Your task to perform on an android device: search for starred emails in the gmail app Image 0: 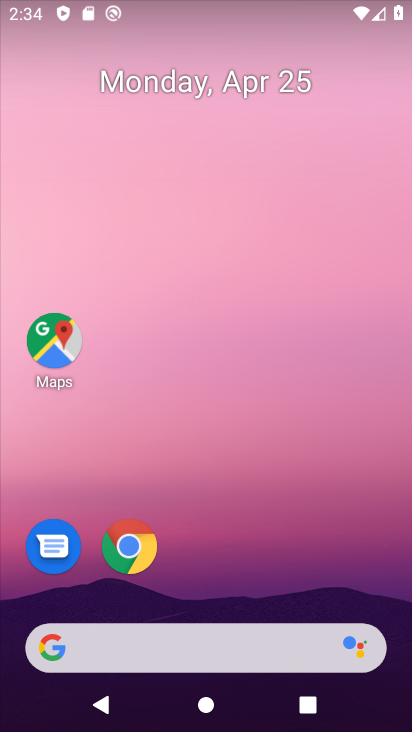
Step 0: drag from (198, 610) to (264, 153)
Your task to perform on an android device: search for starred emails in the gmail app Image 1: 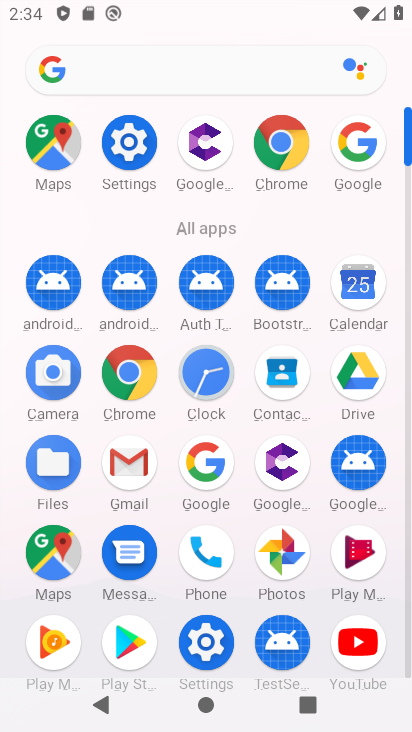
Step 1: click (136, 481)
Your task to perform on an android device: search for starred emails in the gmail app Image 2: 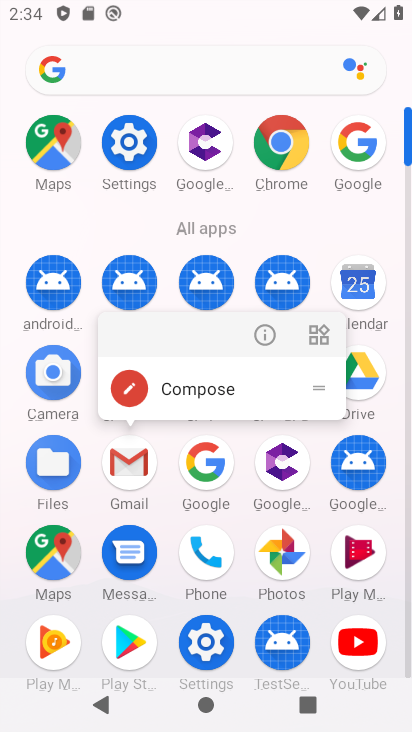
Step 2: click (133, 480)
Your task to perform on an android device: search for starred emails in the gmail app Image 3: 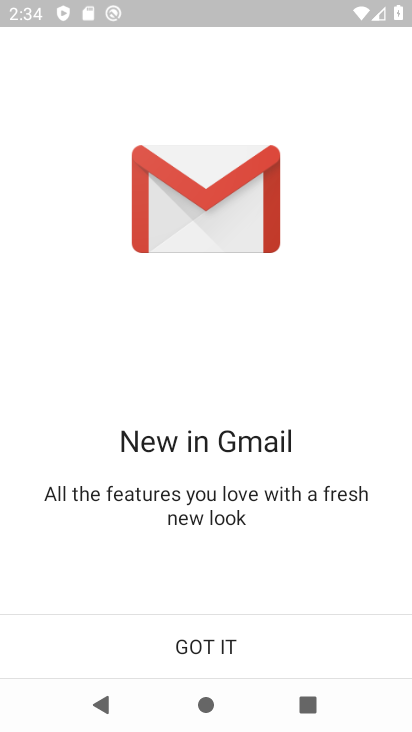
Step 3: click (186, 647)
Your task to perform on an android device: search for starred emails in the gmail app Image 4: 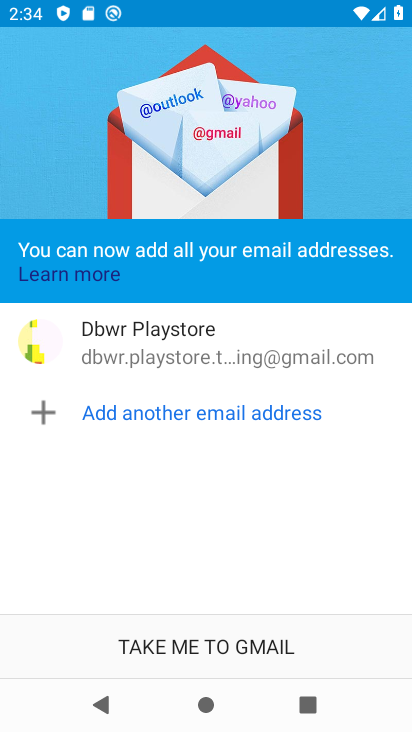
Step 4: click (269, 651)
Your task to perform on an android device: search for starred emails in the gmail app Image 5: 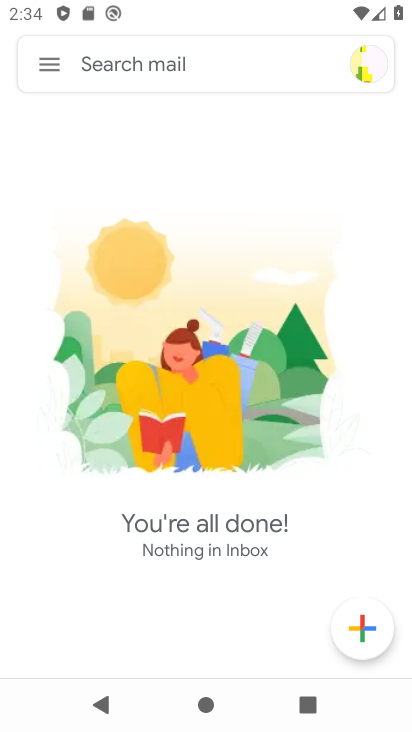
Step 5: click (59, 67)
Your task to perform on an android device: search for starred emails in the gmail app Image 6: 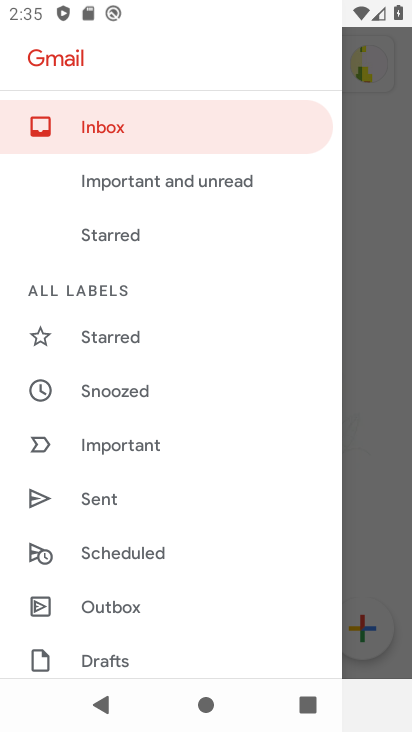
Step 6: click (191, 343)
Your task to perform on an android device: search for starred emails in the gmail app Image 7: 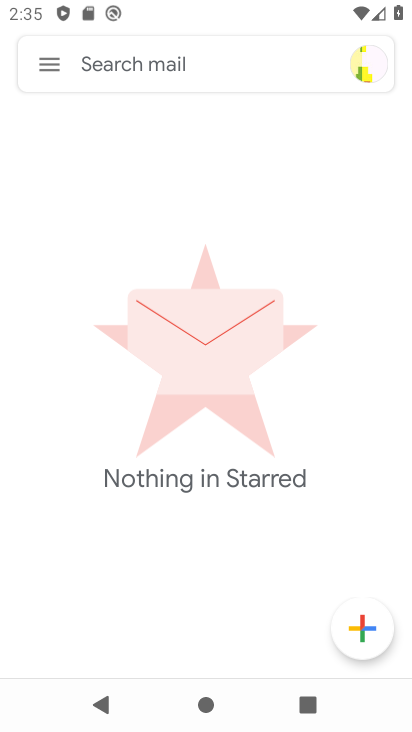
Step 7: task complete